Your task to perform on an android device: turn off smart reply in the gmail app Image 0: 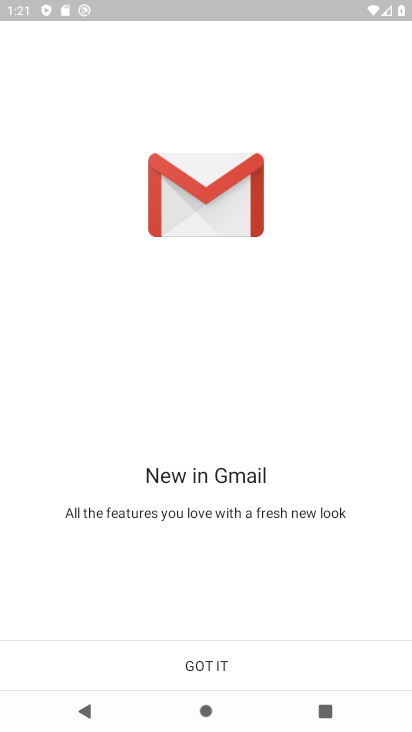
Step 0: click (193, 670)
Your task to perform on an android device: turn off smart reply in the gmail app Image 1: 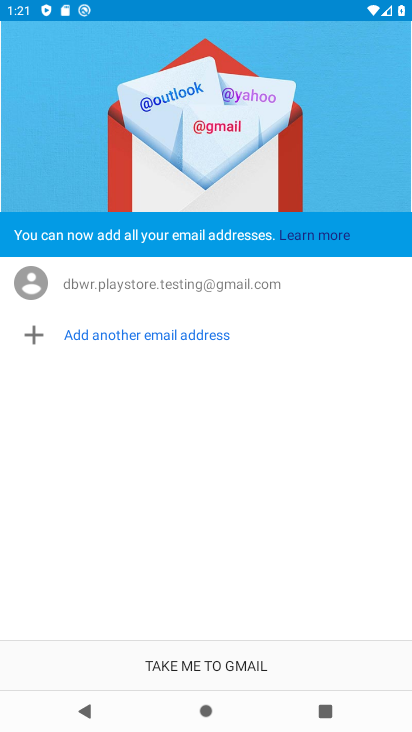
Step 1: click (193, 670)
Your task to perform on an android device: turn off smart reply in the gmail app Image 2: 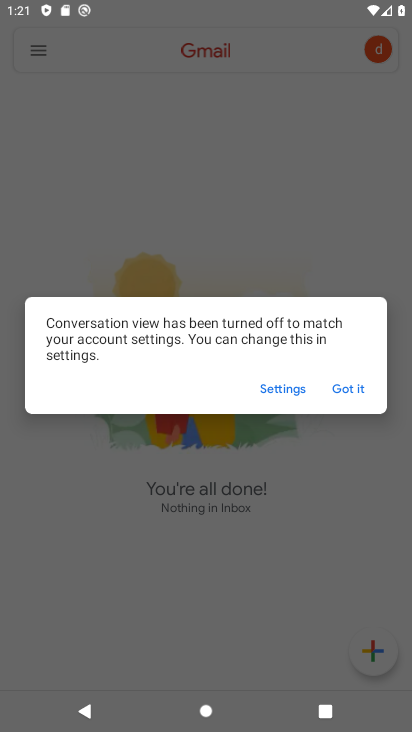
Step 2: click (350, 387)
Your task to perform on an android device: turn off smart reply in the gmail app Image 3: 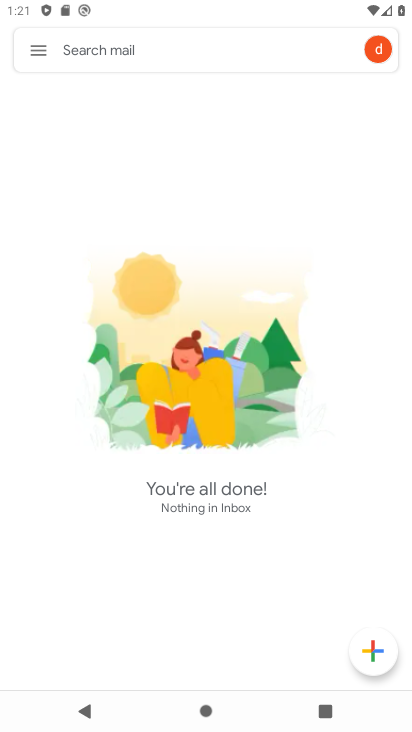
Step 3: click (41, 52)
Your task to perform on an android device: turn off smart reply in the gmail app Image 4: 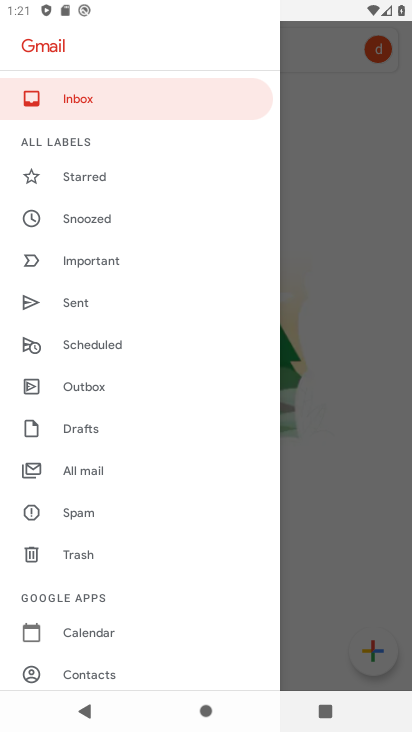
Step 4: drag from (155, 588) to (135, 402)
Your task to perform on an android device: turn off smart reply in the gmail app Image 5: 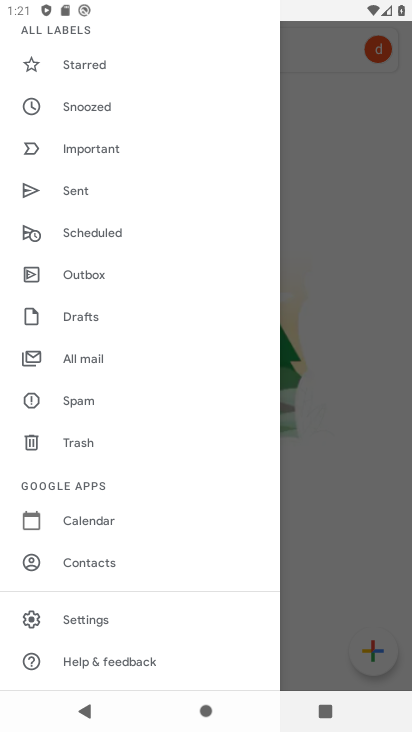
Step 5: click (76, 622)
Your task to perform on an android device: turn off smart reply in the gmail app Image 6: 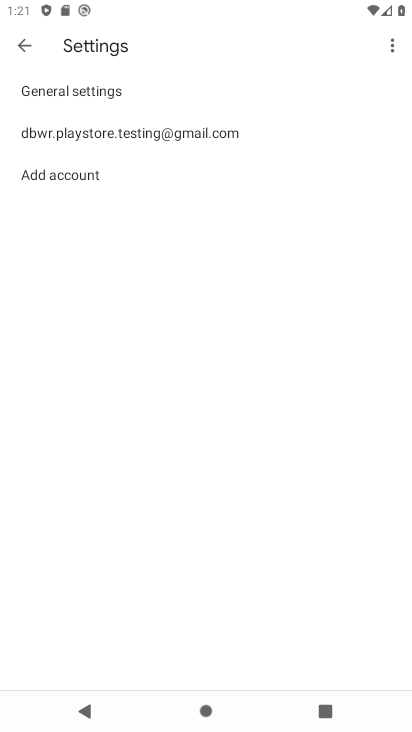
Step 6: click (143, 135)
Your task to perform on an android device: turn off smart reply in the gmail app Image 7: 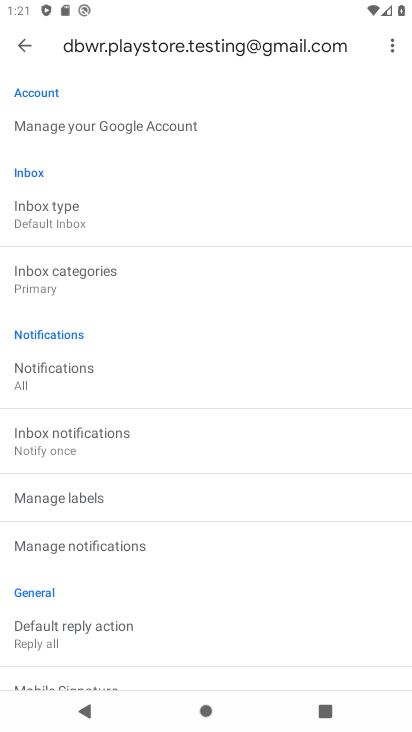
Step 7: drag from (184, 562) to (156, 260)
Your task to perform on an android device: turn off smart reply in the gmail app Image 8: 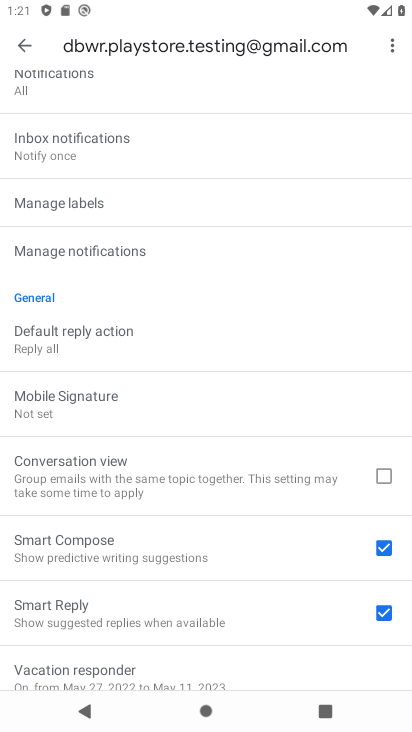
Step 8: drag from (197, 574) to (178, 397)
Your task to perform on an android device: turn off smart reply in the gmail app Image 9: 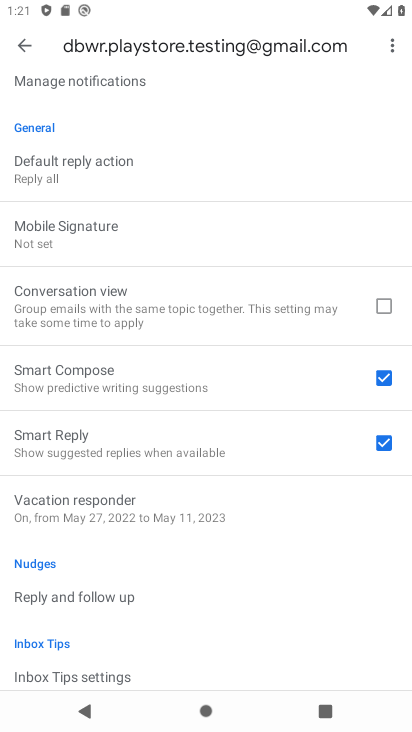
Step 9: click (384, 442)
Your task to perform on an android device: turn off smart reply in the gmail app Image 10: 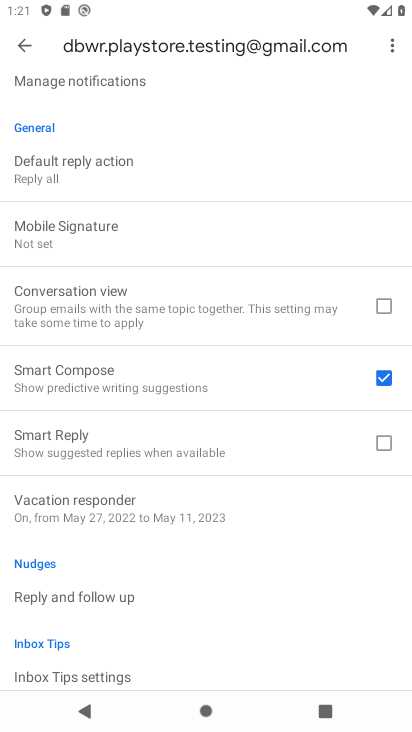
Step 10: task complete